Your task to perform on an android device: Open Youtube and go to "Your channel" Image 0: 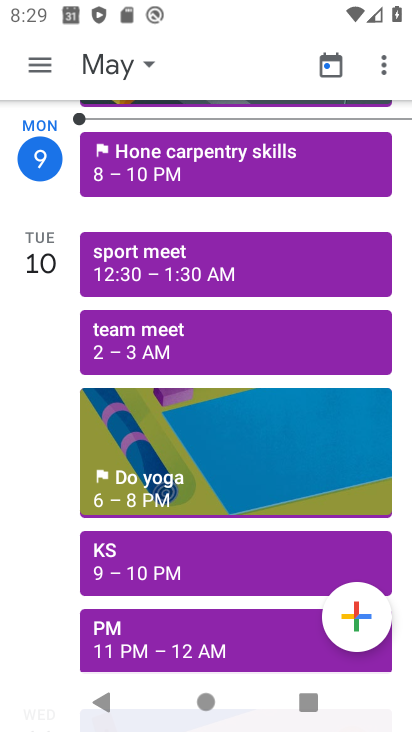
Step 0: press home button
Your task to perform on an android device: Open Youtube and go to "Your channel" Image 1: 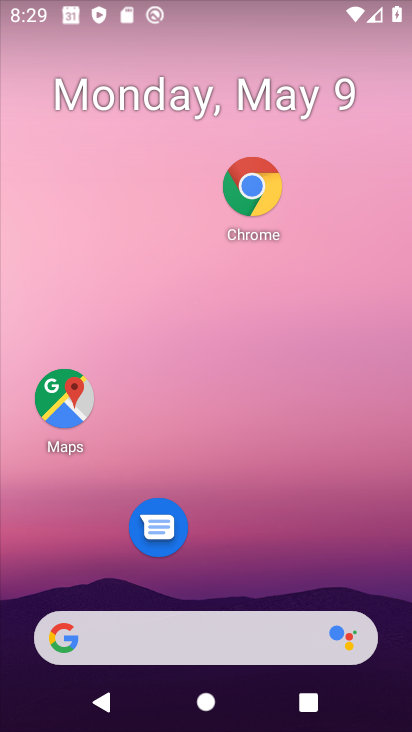
Step 1: drag from (221, 591) to (195, 37)
Your task to perform on an android device: Open Youtube and go to "Your channel" Image 2: 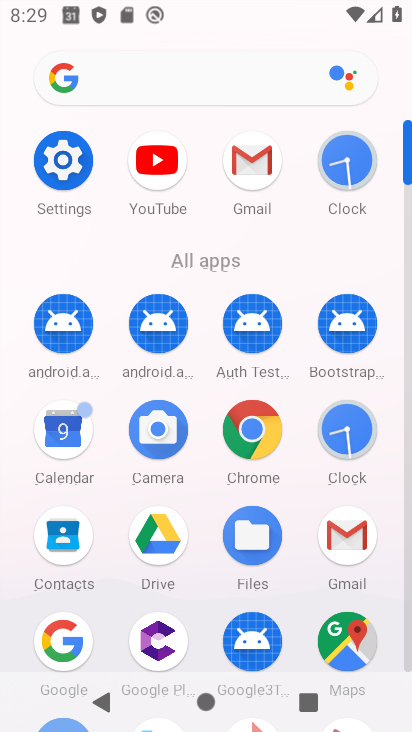
Step 2: click (157, 159)
Your task to perform on an android device: Open Youtube and go to "Your channel" Image 3: 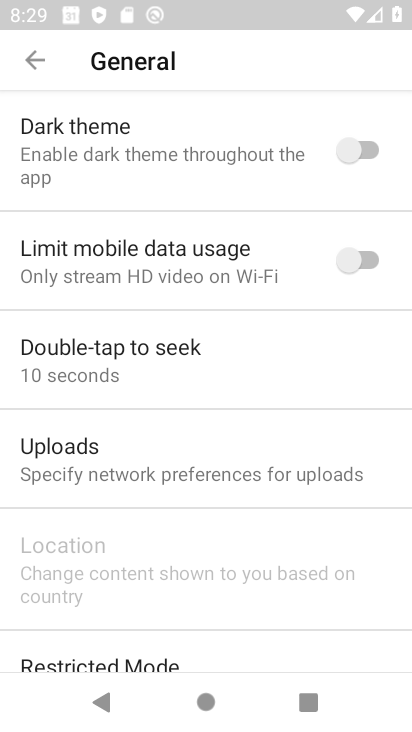
Step 3: click (42, 63)
Your task to perform on an android device: Open Youtube and go to "Your channel" Image 4: 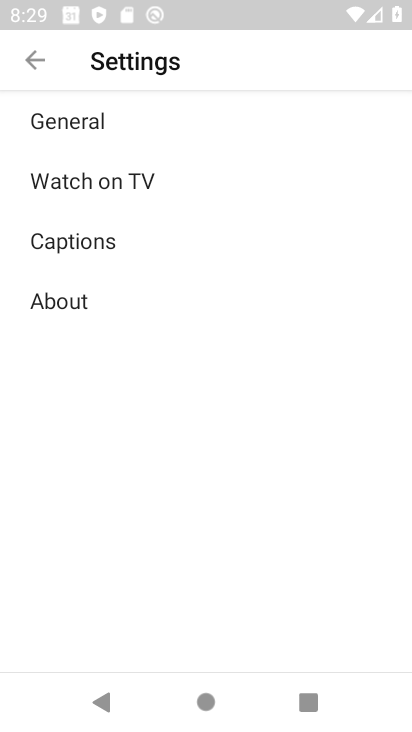
Step 4: click (24, 64)
Your task to perform on an android device: Open Youtube and go to "Your channel" Image 5: 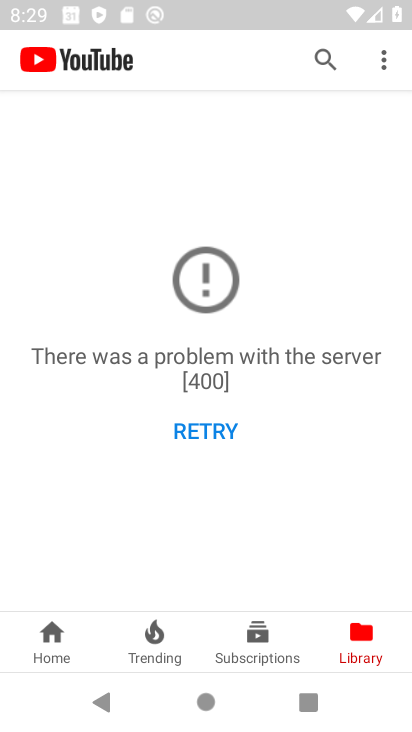
Step 5: click (355, 646)
Your task to perform on an android device: Open Youtube and go to "Your channel" Image 6: 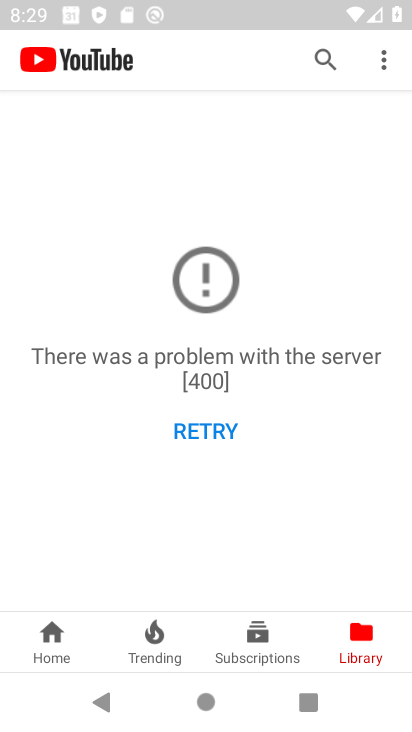
Step 6: task complete